Your task to perform on an android device: Set the phone to "Do not disturb". Image 0: 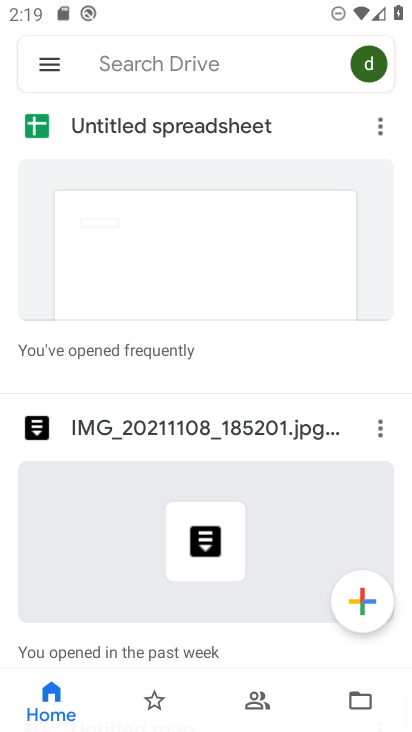
Step 0: press home button
Your task to perform on an android device: Set the phone to "Do not disturb". Image 1: 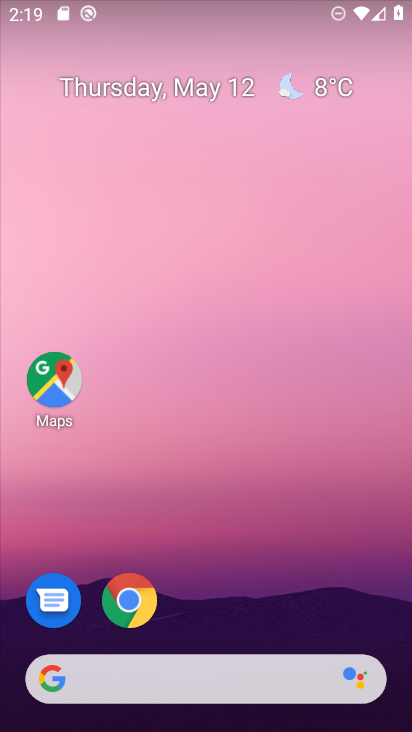
Step 1: drag from (222, 726) to (222, 206)
Your task to perform on an android device: Set the phone to "Do not disturb". Image 2: 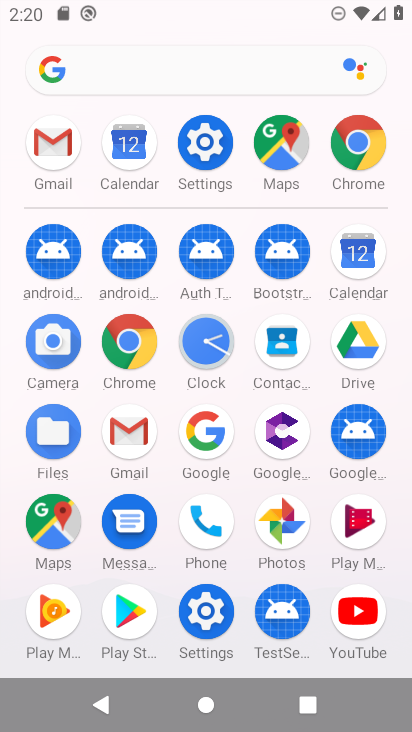
Step 2: click (207, 145)
Your task to perform on an android device: Set the phone to "Do not disturb". Image 3: 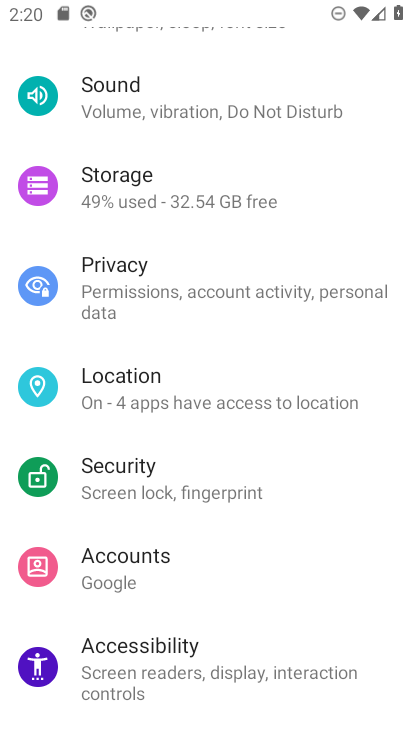
Step 3: drag from (205, 698) to (183, 338)
Your task to perform on an android device: Set the phone to "Do not disturb". Image 4: 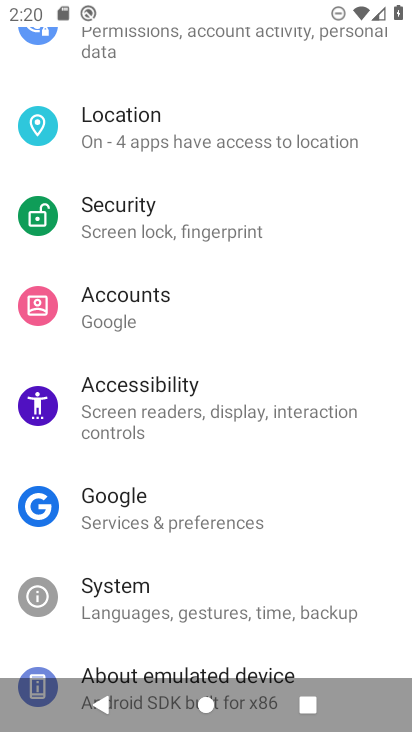
Step 4: drag from (176, 615) to (175, 267)
Your task to perform on an android device: Set the phone to "Do not disturb". Image 5: 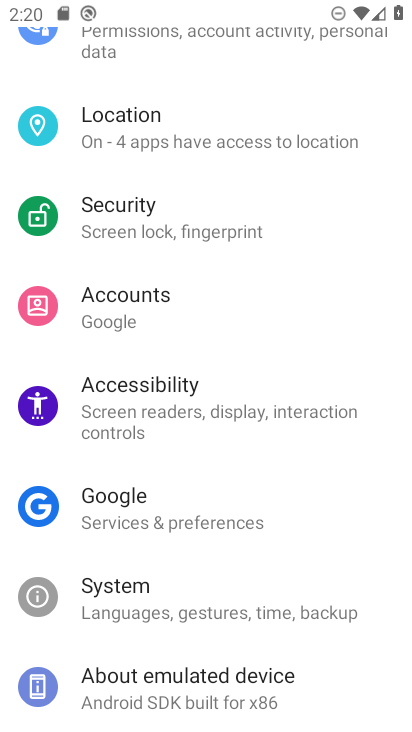
Step 5: drag from (268, 154) to (273, 599)
Your task to perform on an android device: Set the phone to "Do not disturb". Image 6: 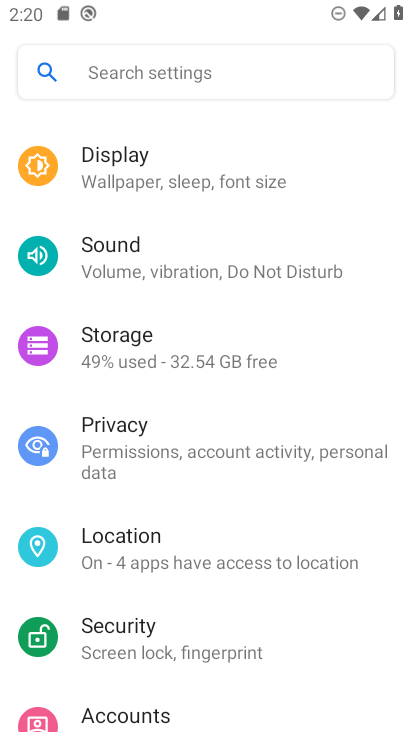
Step 6: click (243, 274)
Your task to perform on an android device: Set the phone to "Do not disturb". Image 7: 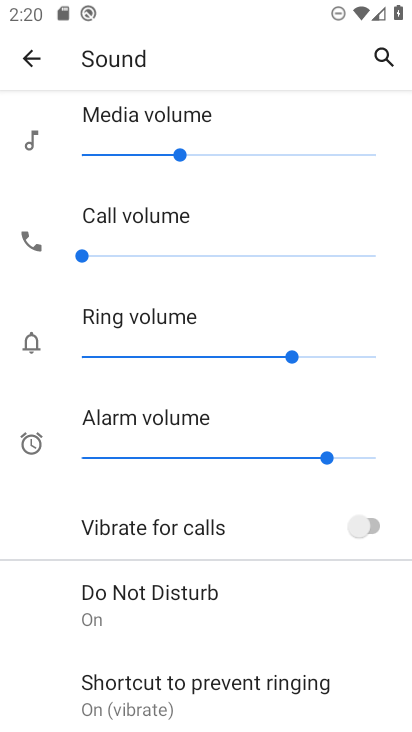
Step 7: click (142, 591)
Your task to perform on an android device: Set the phone to "Do not disturb". Image 8: 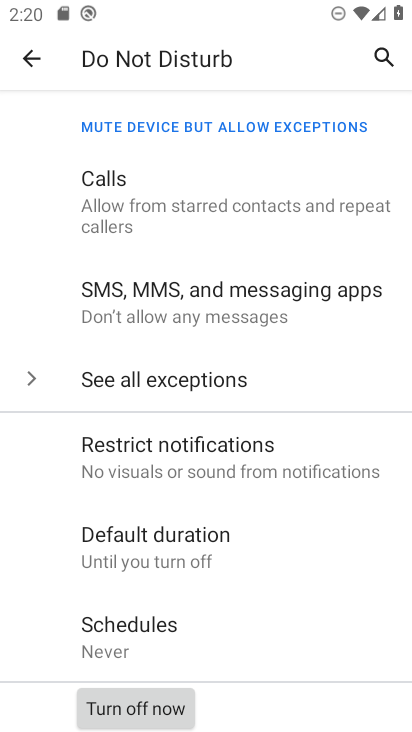
Step 8: task complete